Your task to perform on an android device: turn on improve location accuracy Image 0: 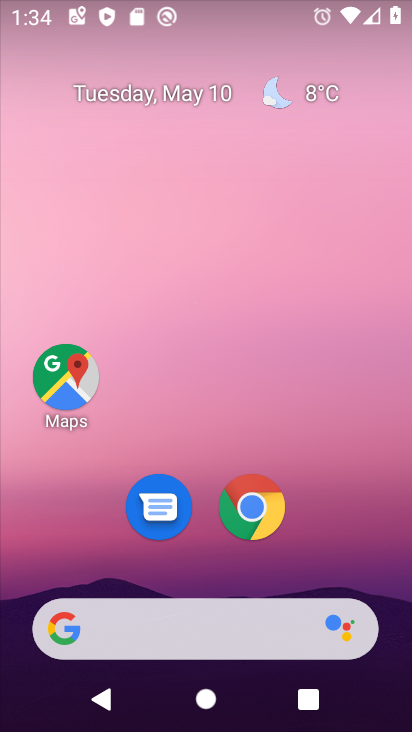
Step 0: drag from (226, 730) to (235, 217)
Your task to perform on an android device: turn on improve location accuracy Image 1: 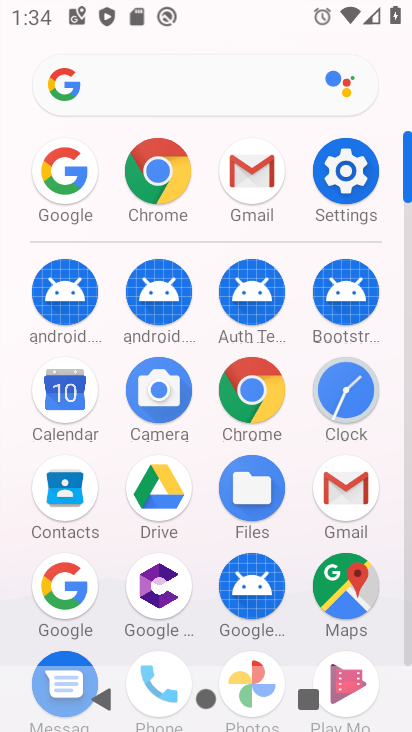
Step 1: click (344, 172)
Your task to perform on an android device: turn on improve location accuracy Image 2: 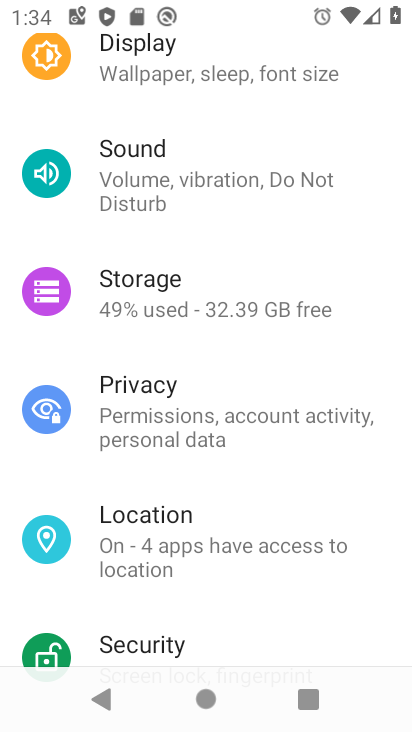
Step 2: click (156, 536)
Your task to perform on an android device: turn on improve location accuracy Image 3: 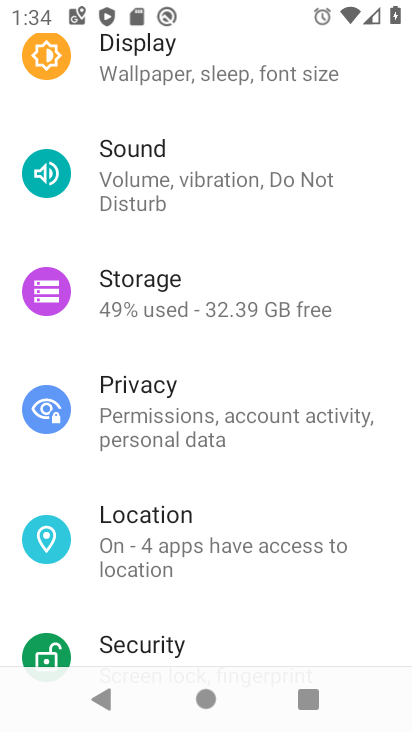
Step 3: click (148, 538)
Your task to perform on an android device: turn on improve location accuracy Image 4: 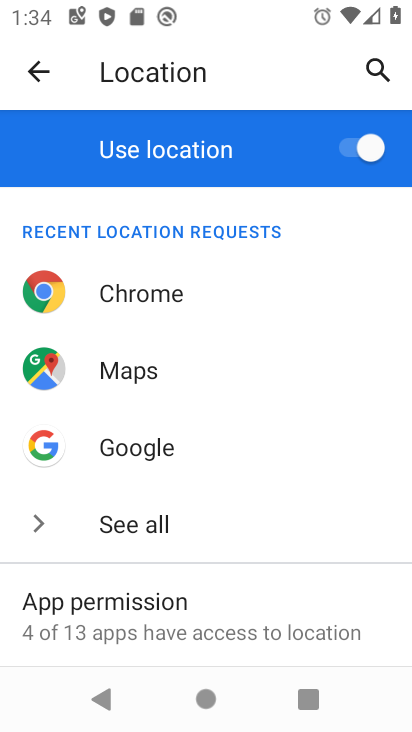
Step 4: drag from (186, 628) to (194, 288)
Your task to perform on an android device: turn on improve location accuracy Image 5: 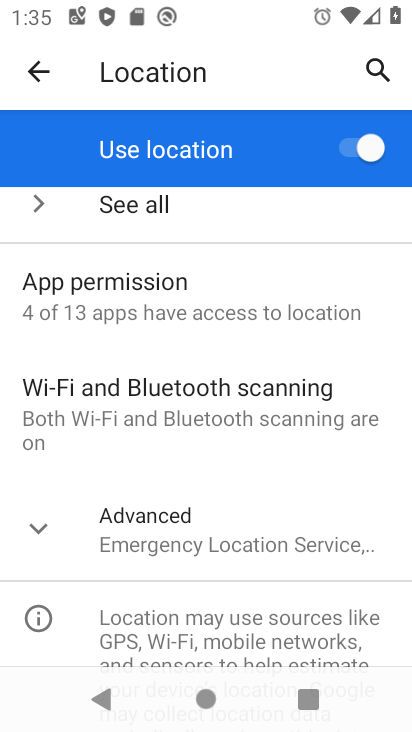
Step 5: click (171, 529)
Your task to perform on an android device: turn on improve location accuracy Image 6: 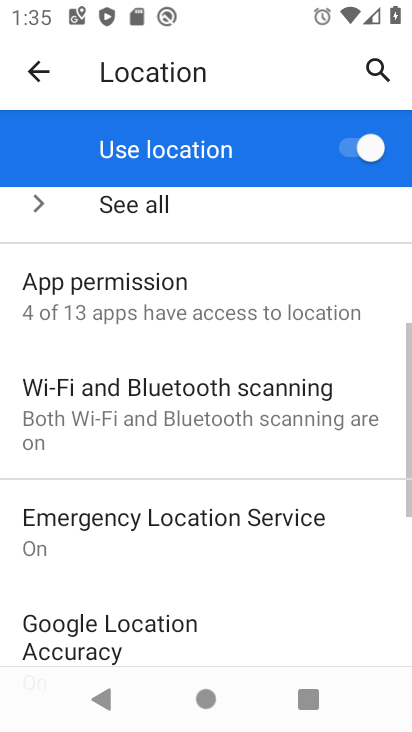
Step 6: drag from (199, 648) to (225, 359)
Your task to perform on an android device: turn on improve location accuracy Image 7: 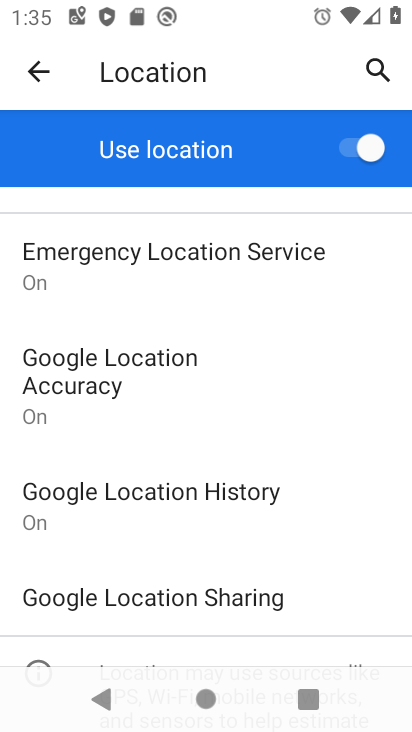
Step 7: click (105, 367)
Your task to perform on an android device: turn on improve location accuracy Image 8: 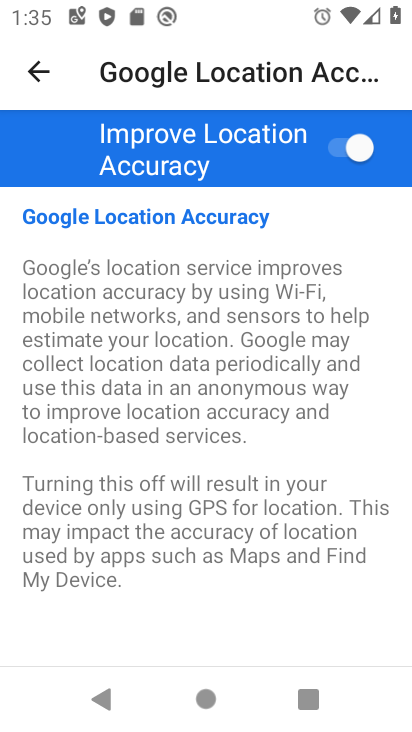
Step 8: task complete